Your task to perform on an android device: View the shopping cart on target.com. Search for dell xps on target.com, select the first entry, add it to the cart, then select checkout. Image 0: 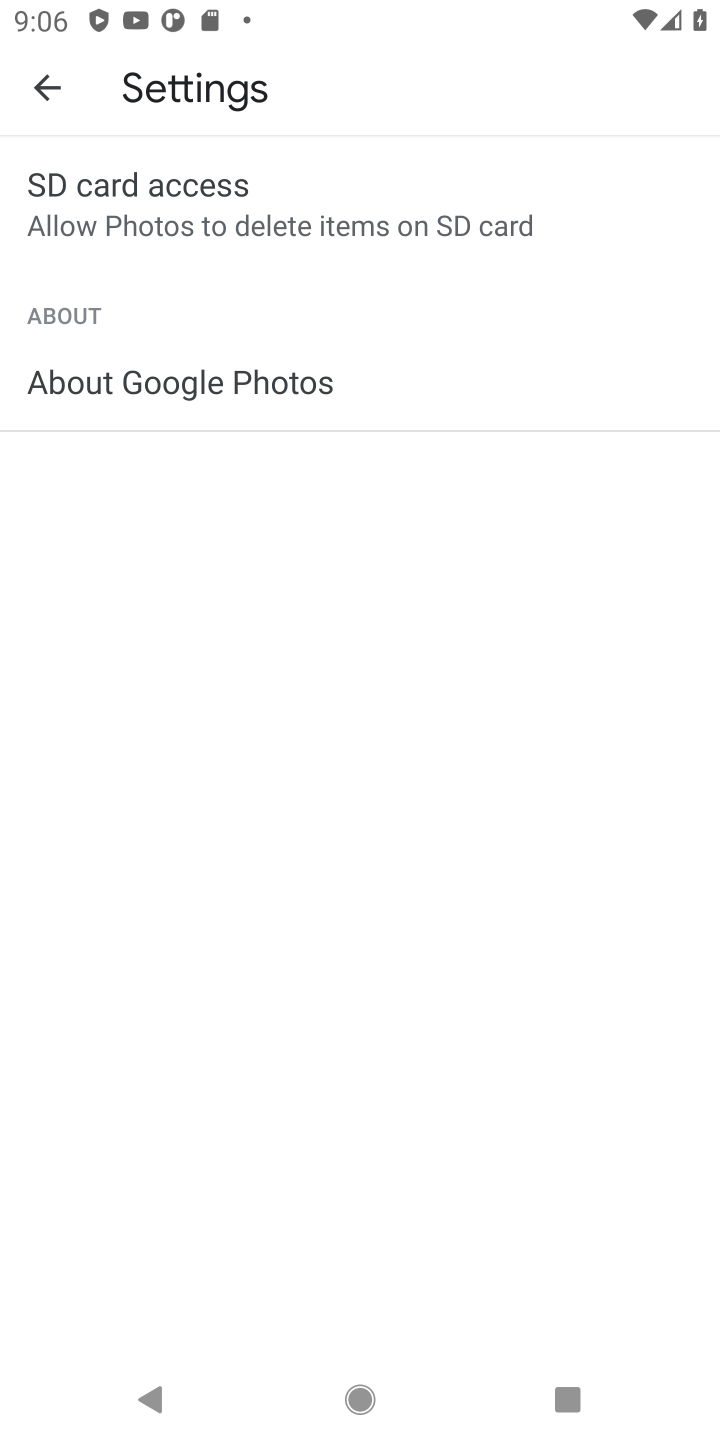
Step 0: press home button
Your task to perform on an android device: View the shopping cart on target.com. Search for dell xps on target.com, select the first entry, add it to the cart, then select checkout. Image 1: 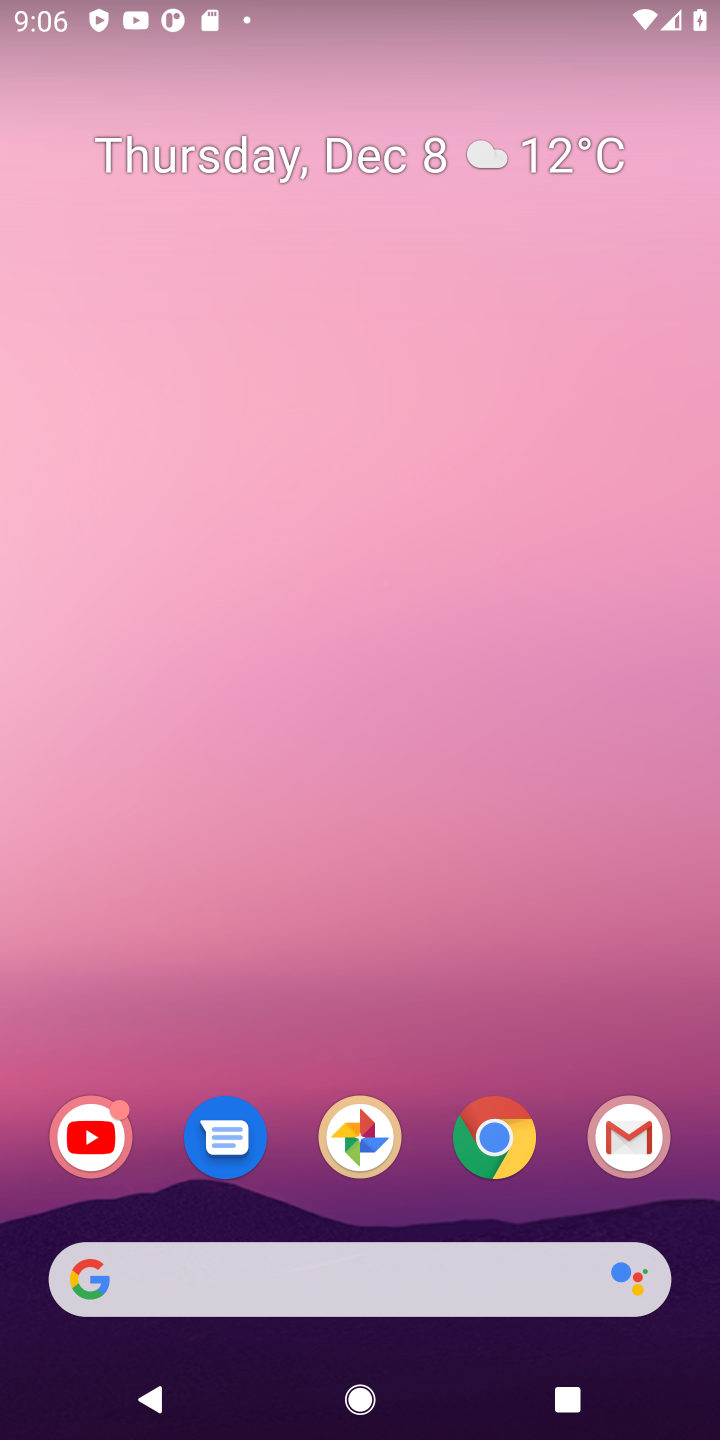
Step 1: click (490, 1137)
Your task to perform on an android device: View the shopping cart on target.com. Search for dell xps on target.com, select the first entry, add it to the cart, then select checkout. Image 2: 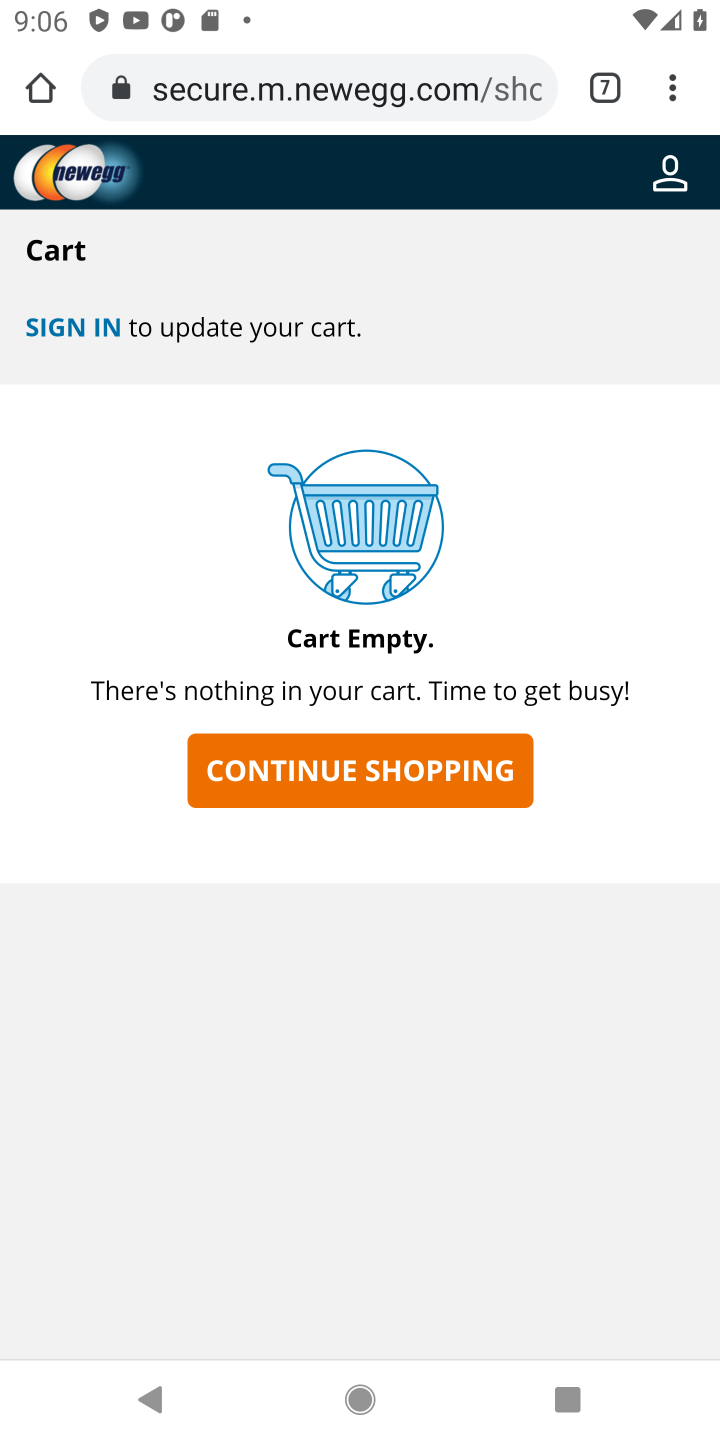
Step 2: click (603, 90)
Your task to perform on an android device: View the shopping cart on target.com. Search for dell xps on target.com, select the first entry, add it to the cart, then select checkout. Image 3: 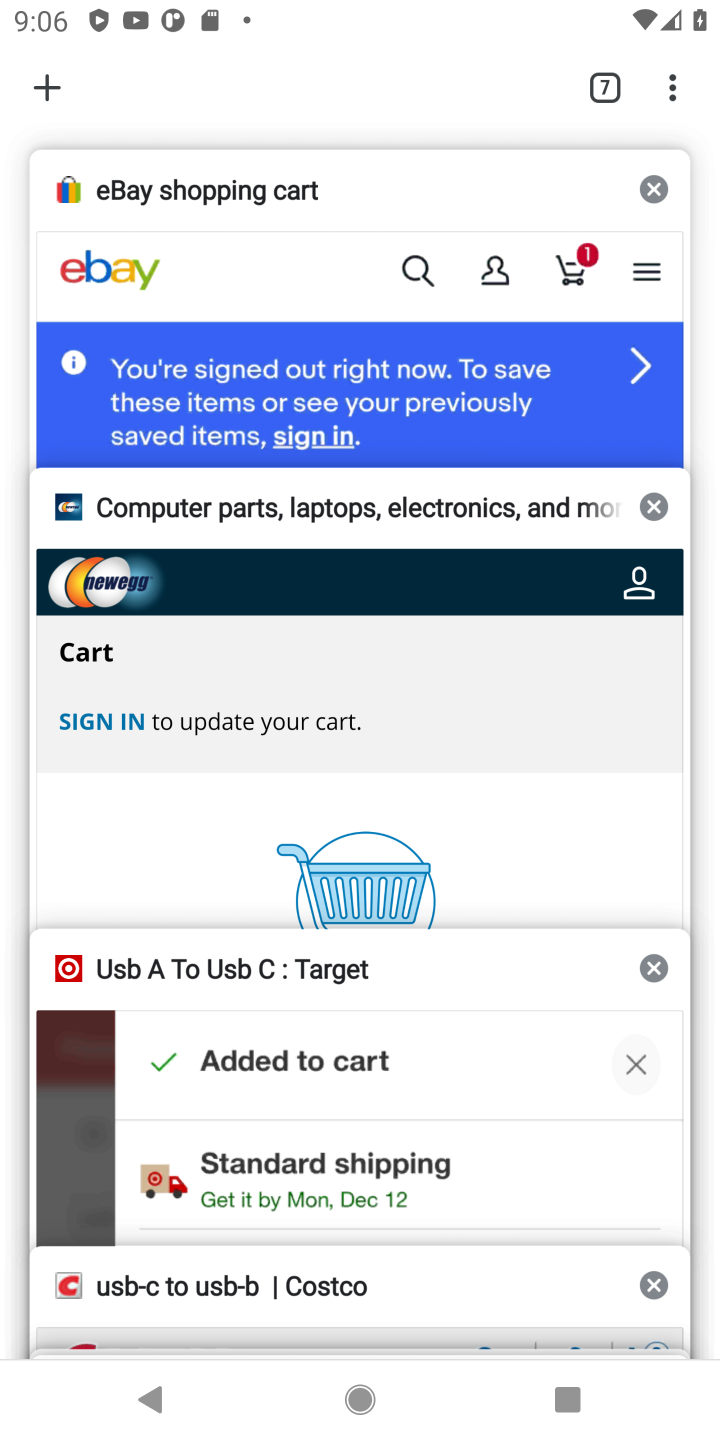
Step 3: click (231, 1015)
Your task to perform on an android device: View the shopping cart on target.com. Search for dell xps on target.com, select the first entry, add it to the cart, then select checkout. Image 4: 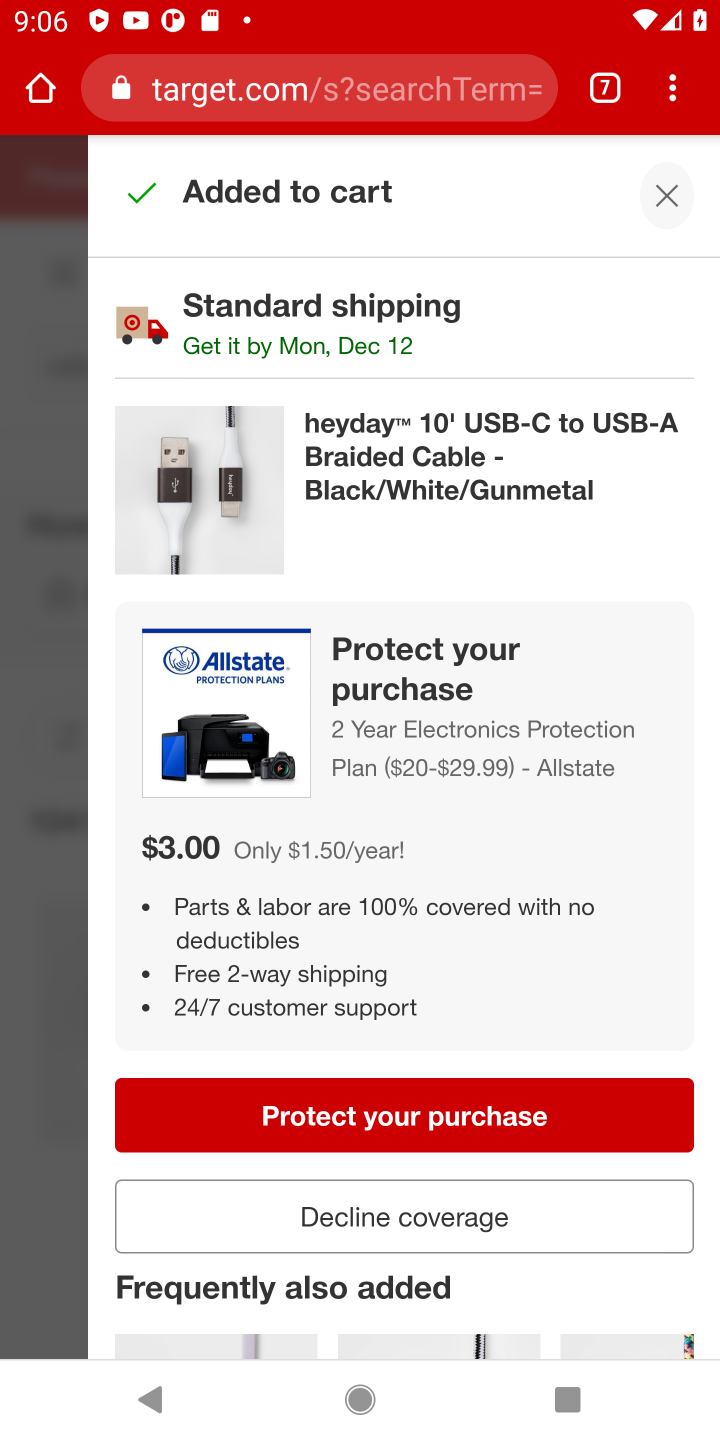
Step 4: click (661, 186)
Your task to perform on an android device: View the shopping cart on target.com. Search for dell xps on target.com, select the first entry, add it to the cart, then select checkout. Image 5: 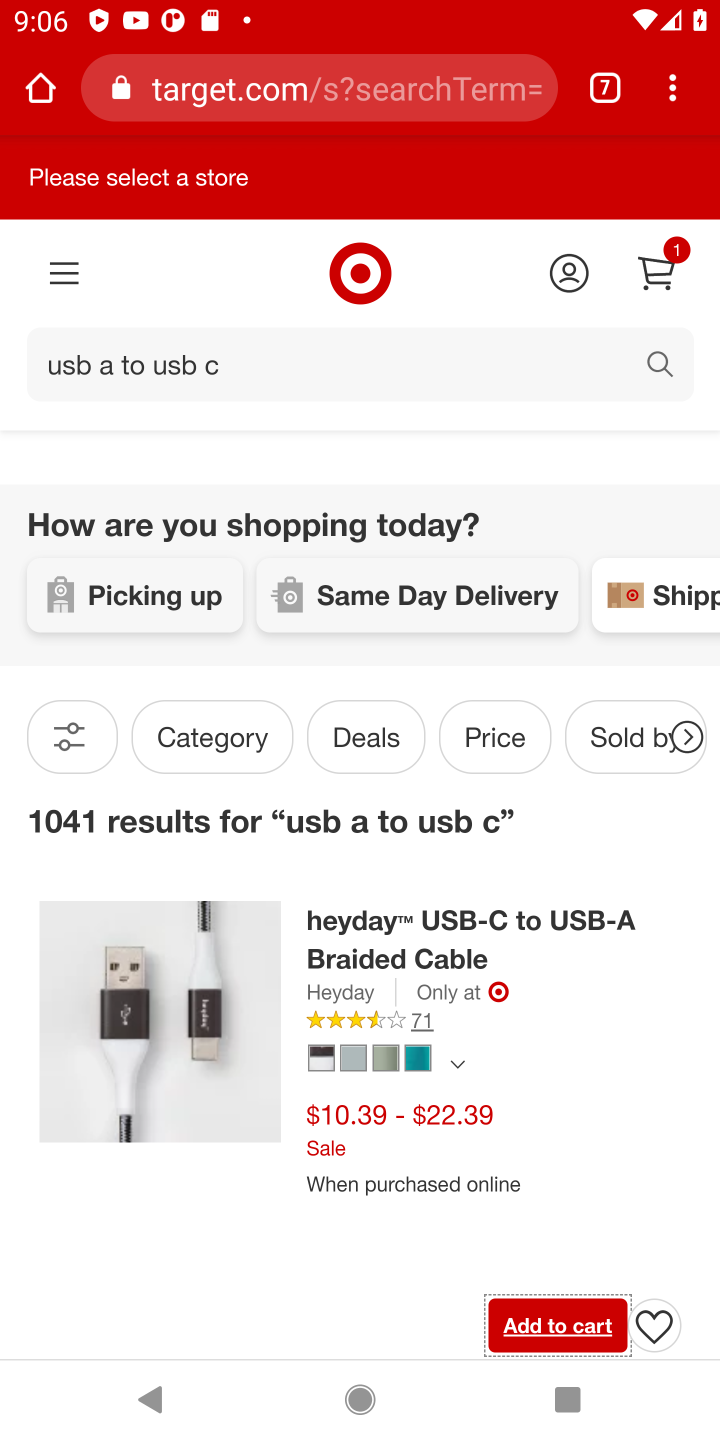
Step 5: click (370, 358)
Your task to perform on an android device: View the shopping cart on target.com. Search for dell xps on target.com, select the first entry, add it to the cart, then select checkout. Image 6: 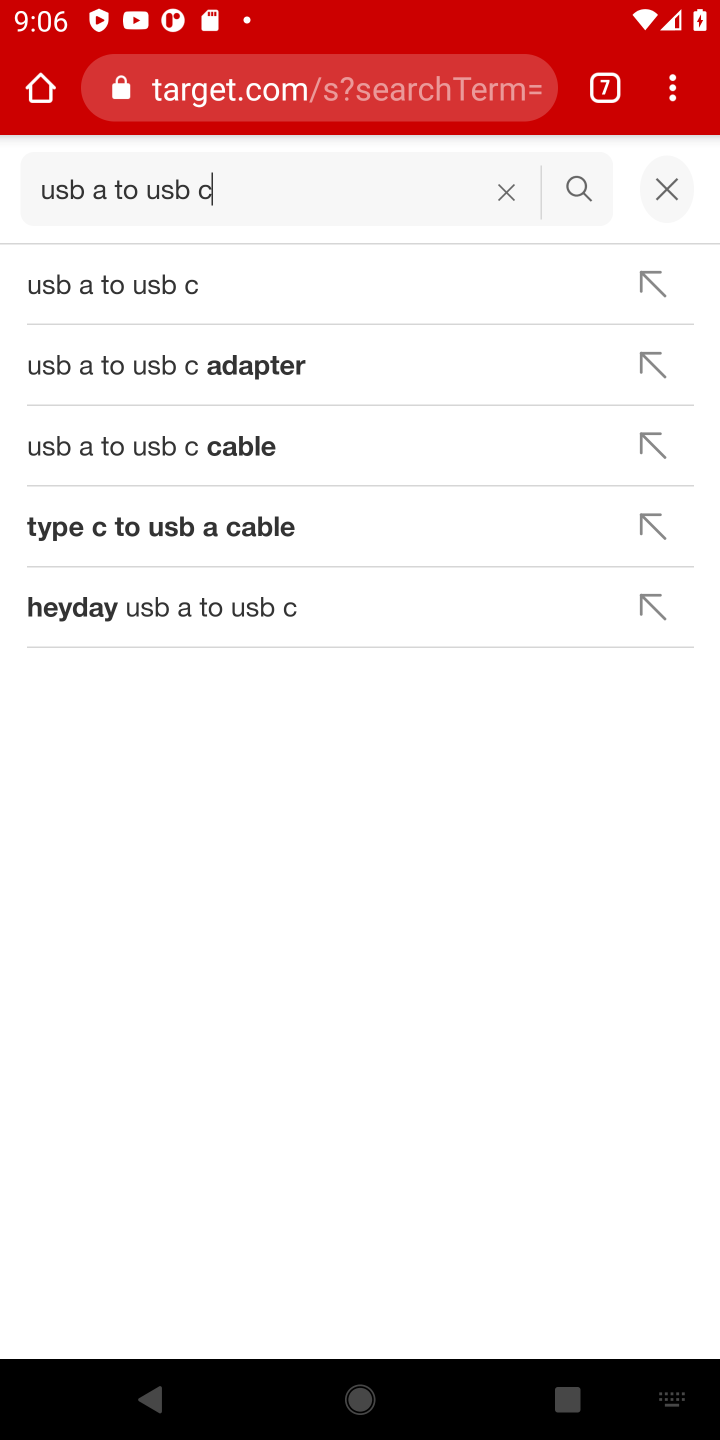
Step 6: click (502, 192)
Your task to perform on an android device: View the shopping cart on target.com. Search for dell xps on target.com, select the first entry, add it to the cart, then select checkout. Image 7: 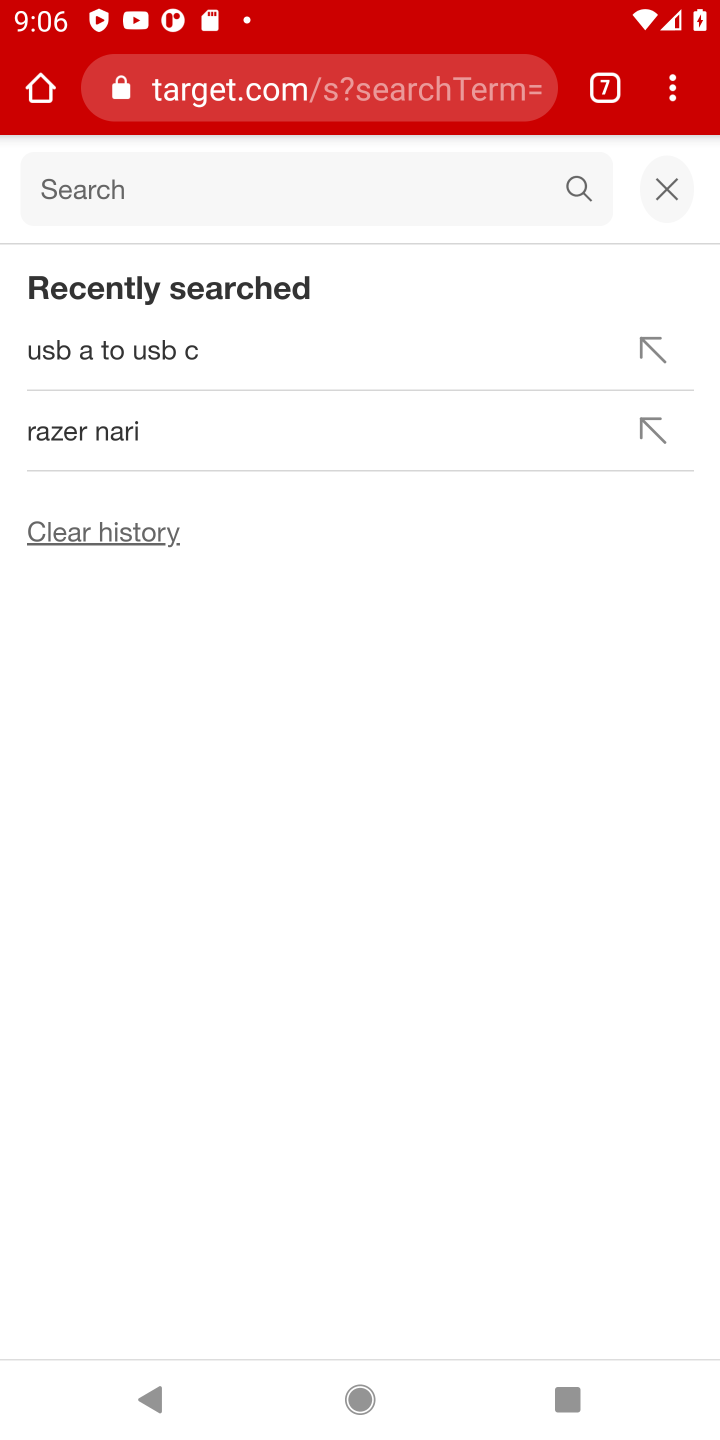
Step 7: type "dell xps"
Your task to perform on an android device: View the shopping cart on target.com. Search for dell xps on target.com, select the first entry, add it to the cart, then select checkout. Image 8: 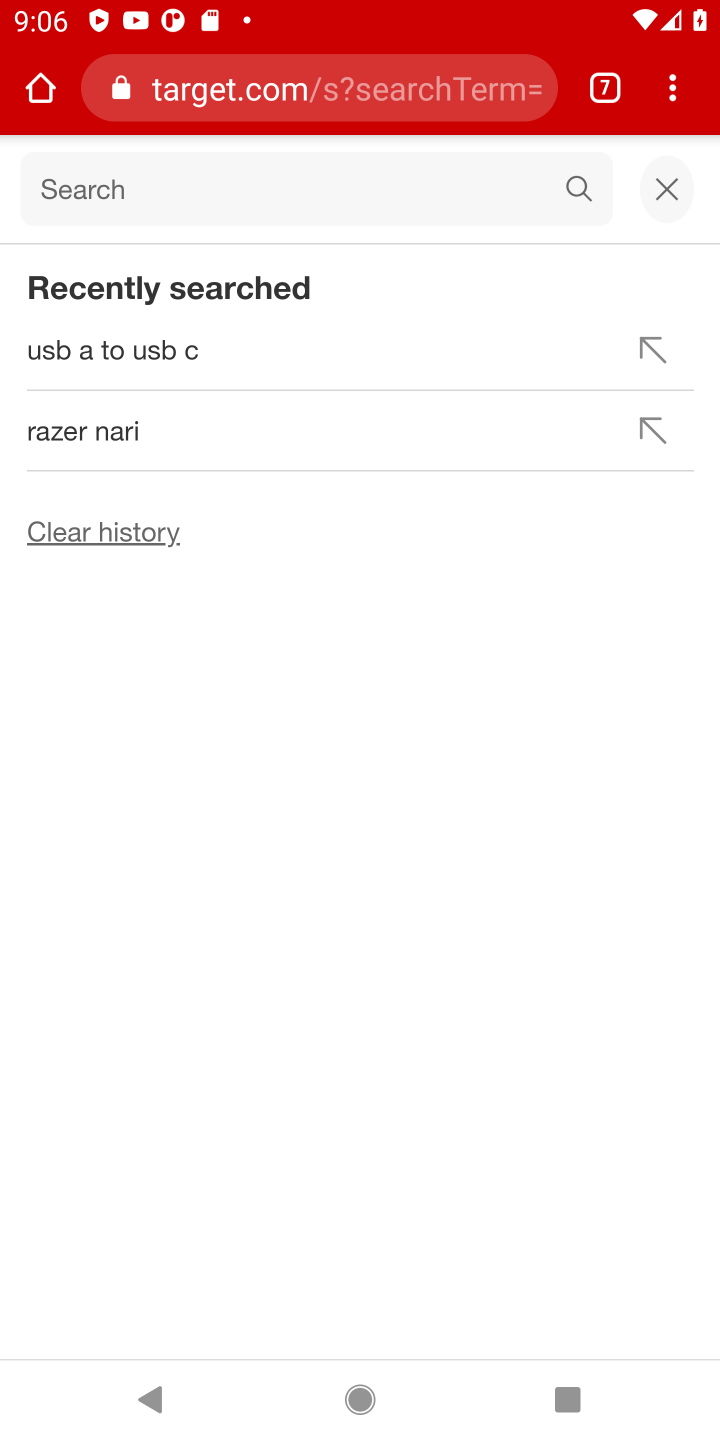
Step 8: click (123, 189)
Your task to perform on an android device: View the shopping cart on target.com. Search for dell xps on target.com, select the first entry, add it to the cart, then select checkout. Image 9: 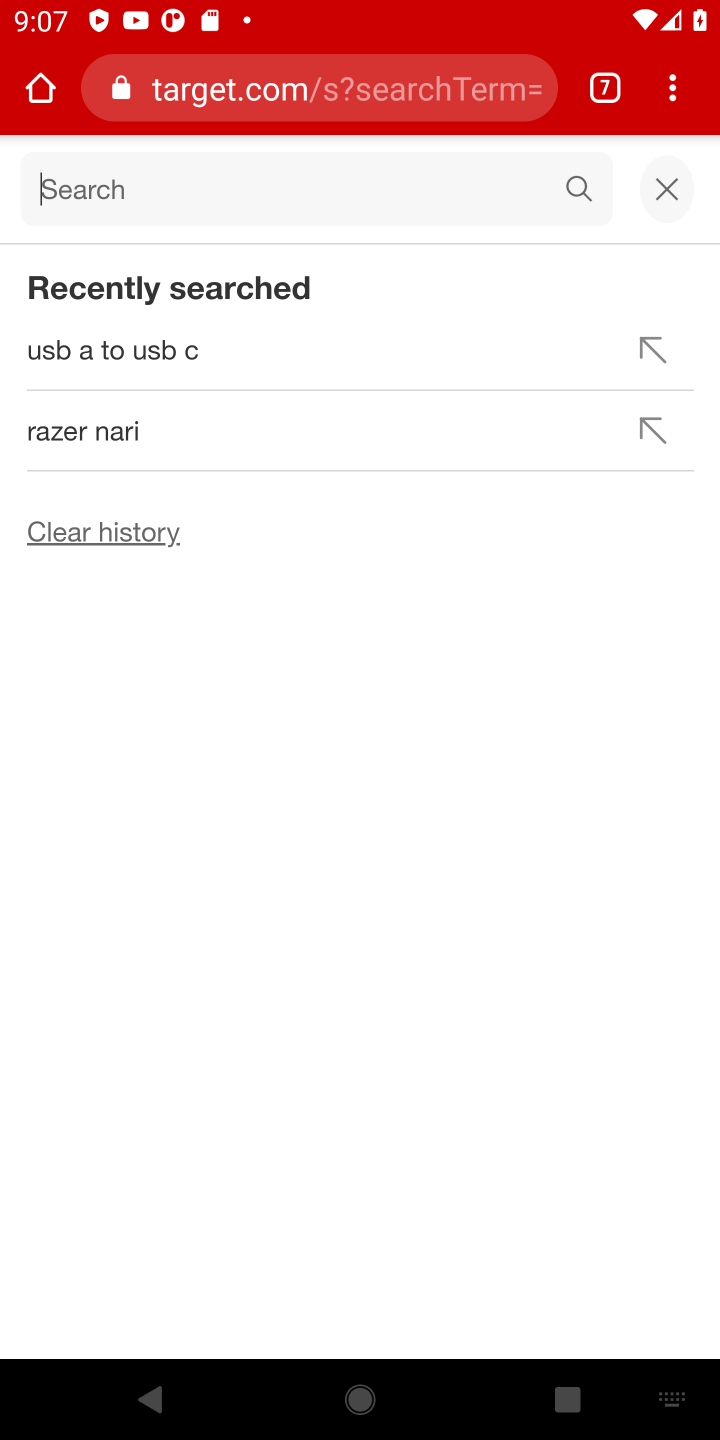
Step 9: type "dell xps"
Your task to perform on an android device: View the shopping cart on target.com. Search for dell xps on target.com, select the first entry, add it to the cart, then select checkout. Image 10: 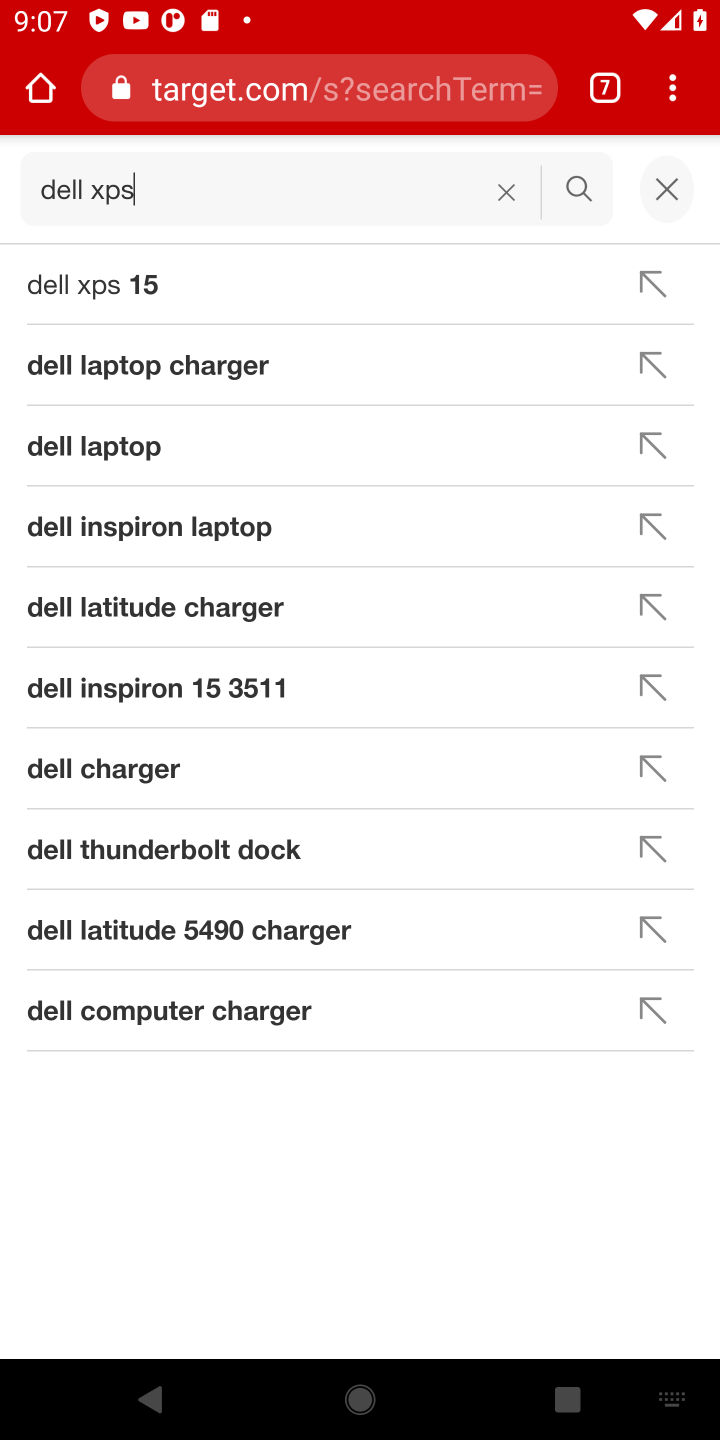
Step 10: click (87, 291)
Your task to perform on an android device: View the shopping cart on target.com. Search for dell xps on target.com, select the first entry, add it to the cart, then select checkout. Image 11: 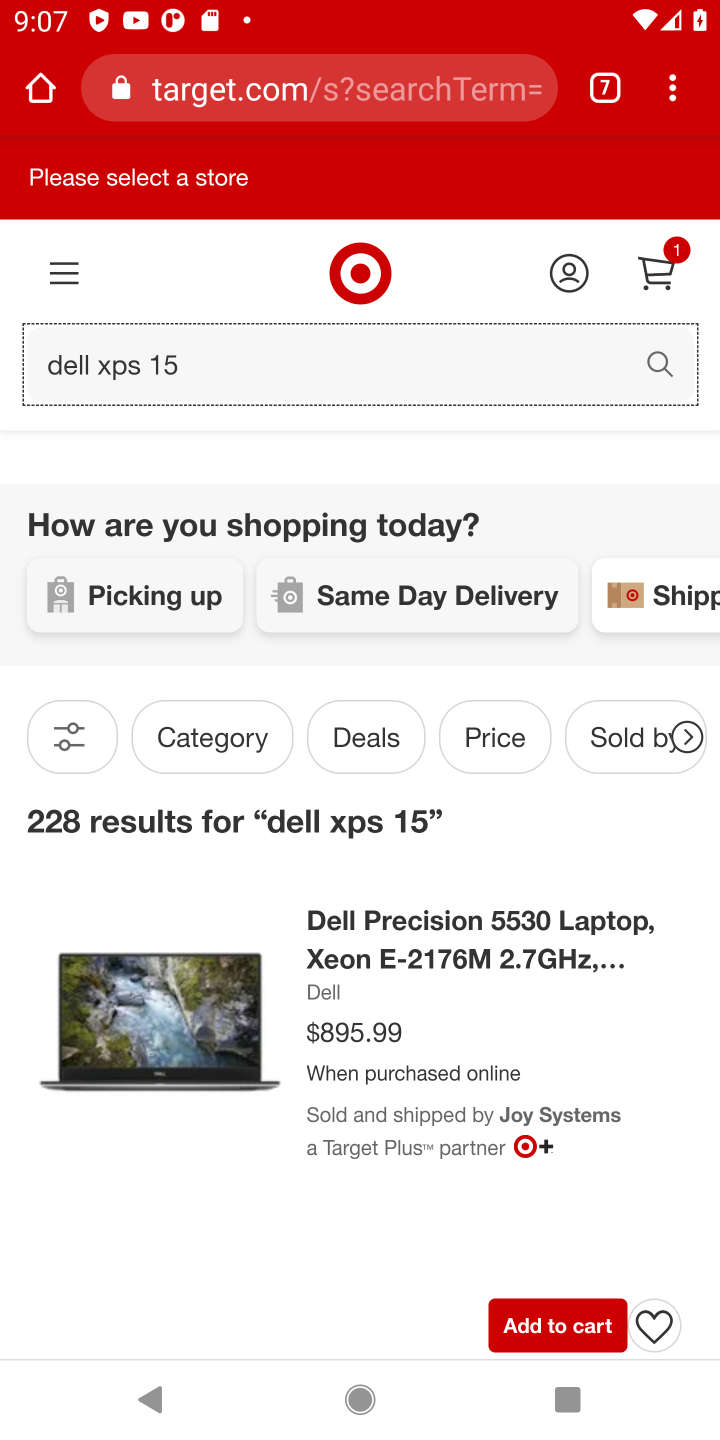
Step 11: task complete